Your task to perform on an android device: turn on translation in the chrome app Image 0: 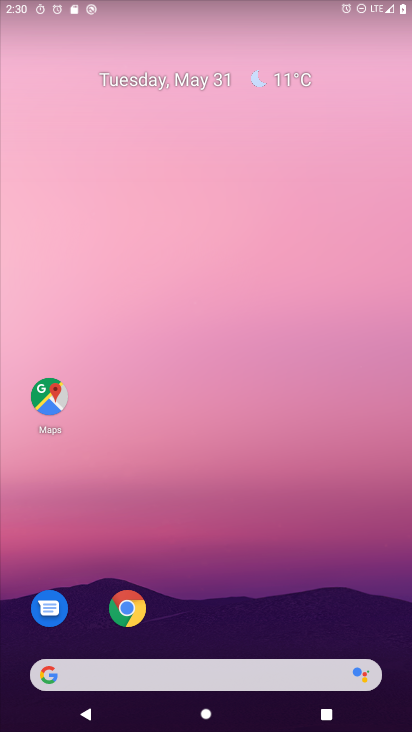
Step 0: click (129, 611)
Your task to perform on an android device: turn on translation in the chrome app Image 1: 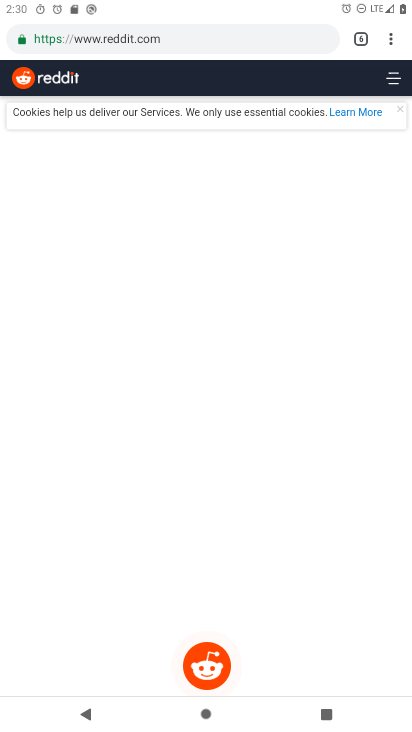
Step 1: click (389, 41)
Your task to perform on an android device: turn on translation in the chrome app Image 2: 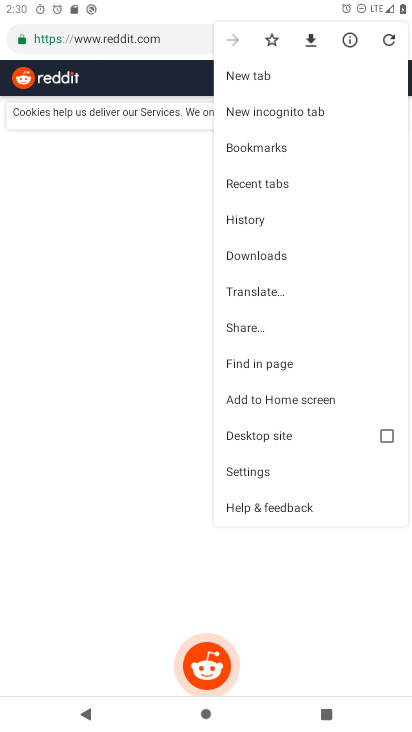
Step 2: click (248, 467)
Your task to perform on an android device: turn on translation in the chrome app Image 3: 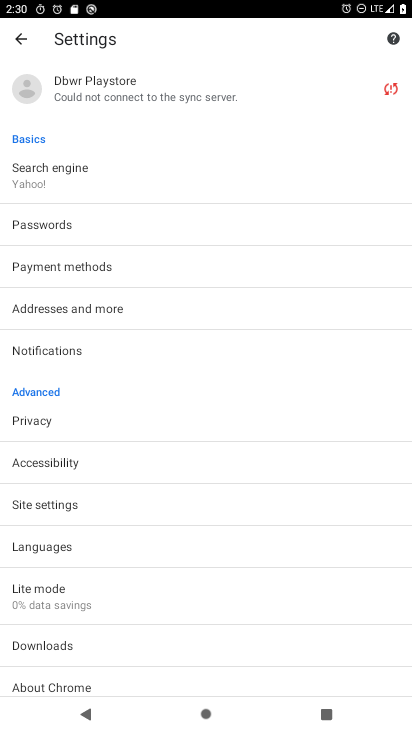
Step 3: click (48, 548)
Your task to perform on an android device: turn on translation in the chrome app Image 4: 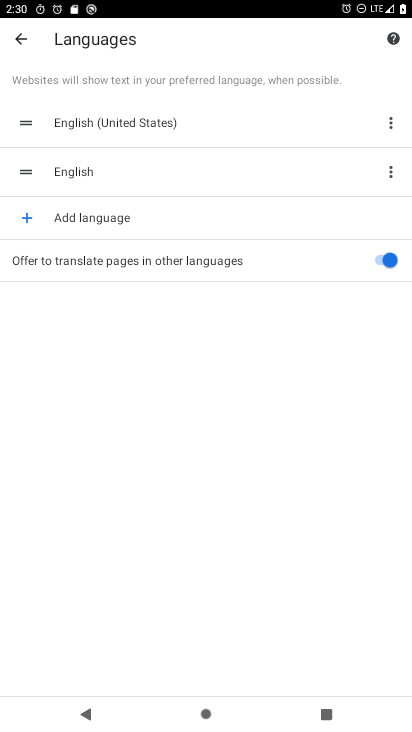
Step 4: task complete